Your task to perform on an android device: turn on translation in the chrome app Image 0: 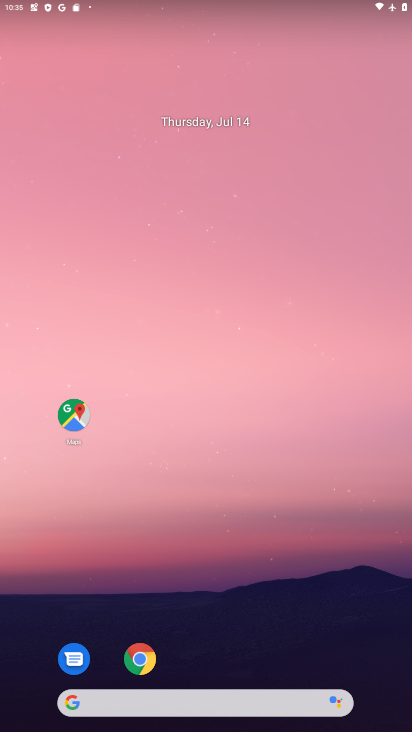
Step 0: drag from (319, 666) to (265, 130)
Your task to perform on an android device: turn on translation in the chrome app Image 1: 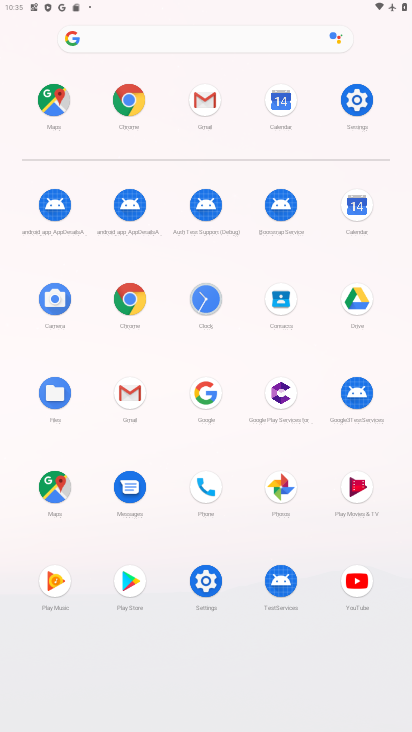
Step 1: click (126, 99)
Your task to perform on an android device: turn on translation in the chrome app Image 2: 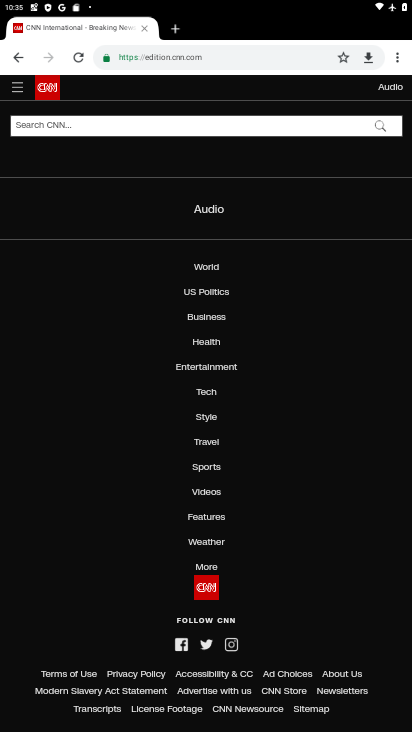
Step 2: drag from (393, 52) to (295, 380)
Your task to perform on an android device: turn on translation in the chrome app Image 3: 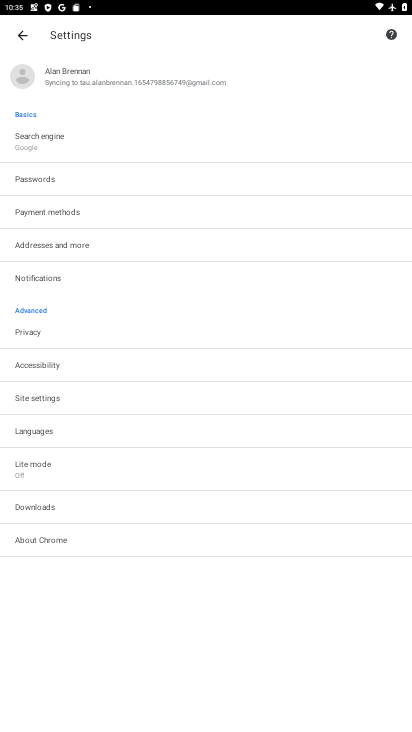
Step 3: click (28, 424)
Your task to perform on an android device: turn on translation in the chrome app Image 4: 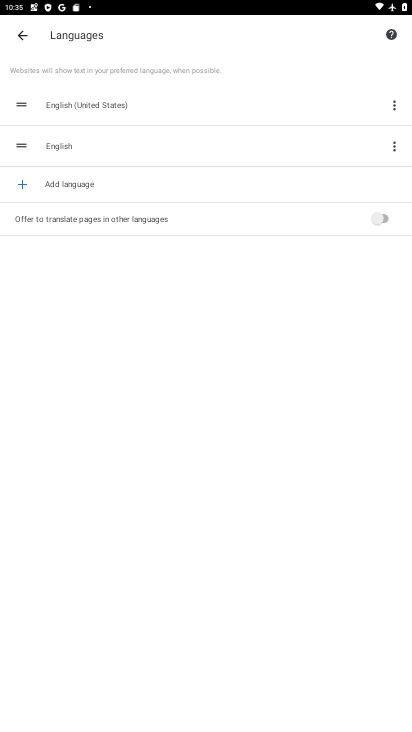
Step 4: click (382, 219)
Your task to perform on an android device: turn on translation in the chrome app Image 5: 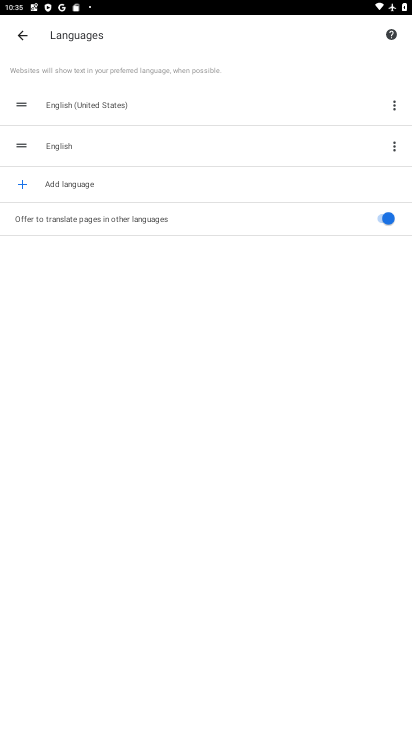
Step 5: task complete